Your task to perform on an android device: Is it going to rain today? Image 0: 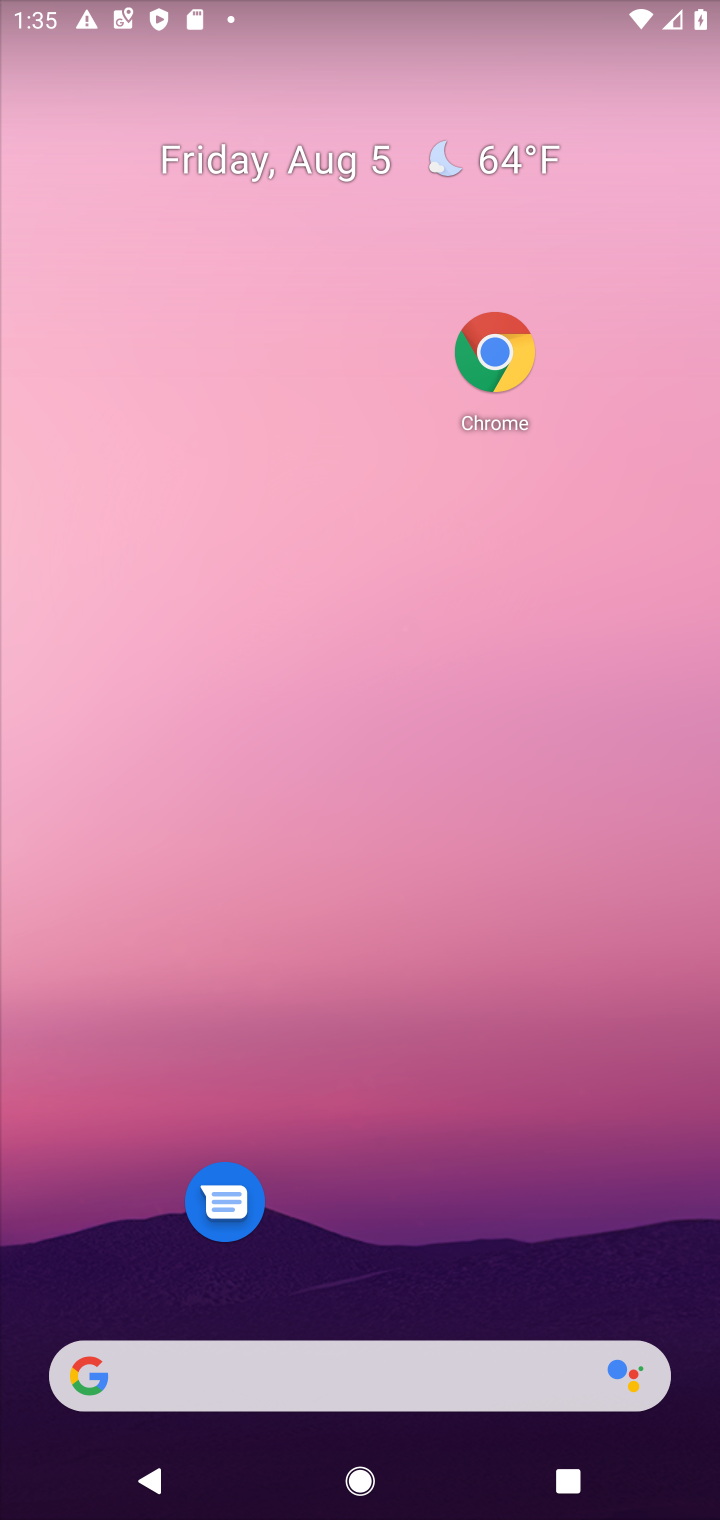
Step 0: click (516, 156)
Your task to perform on an android device: Is it going to rain today? Image 1: 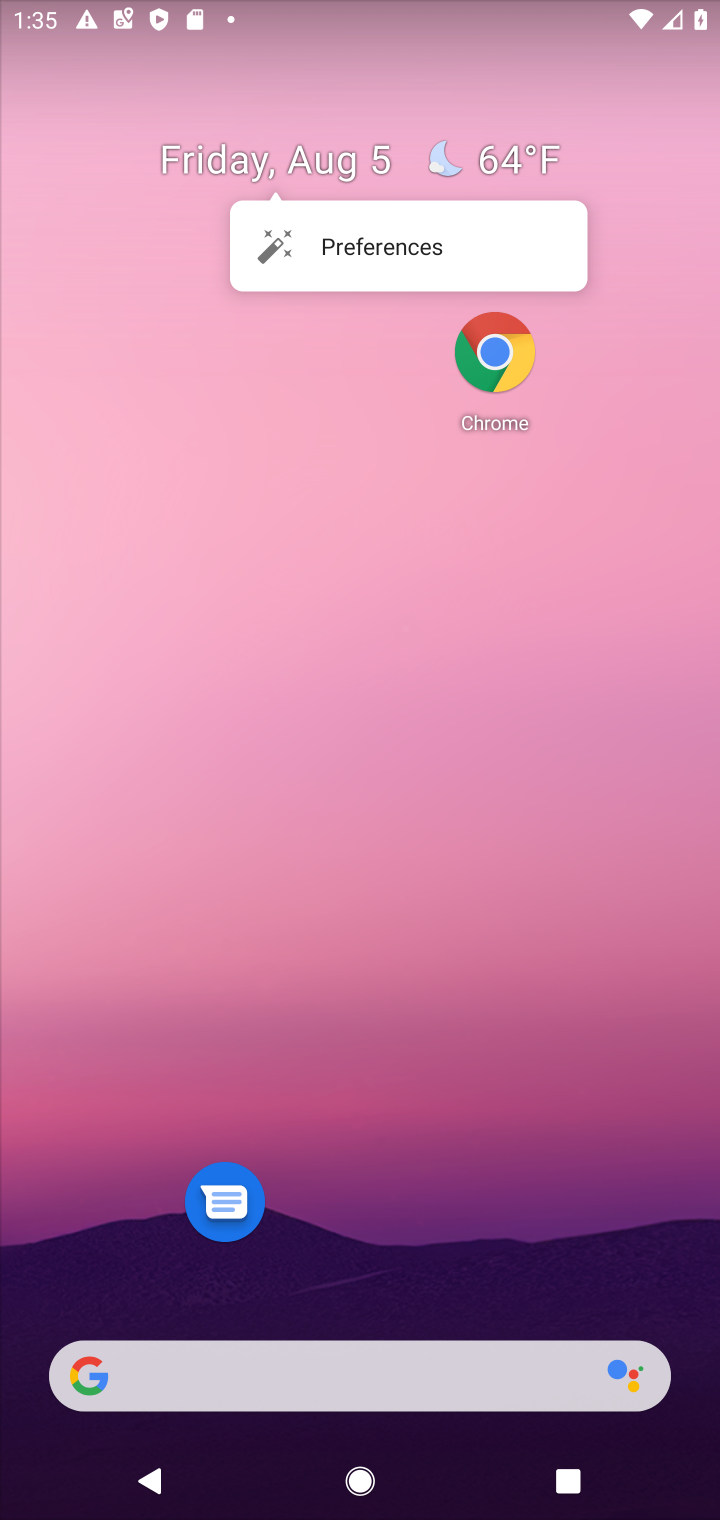
Step 1: click (520, 167)
Your task to perform on an android device: Is it going to rain today? Image 2: 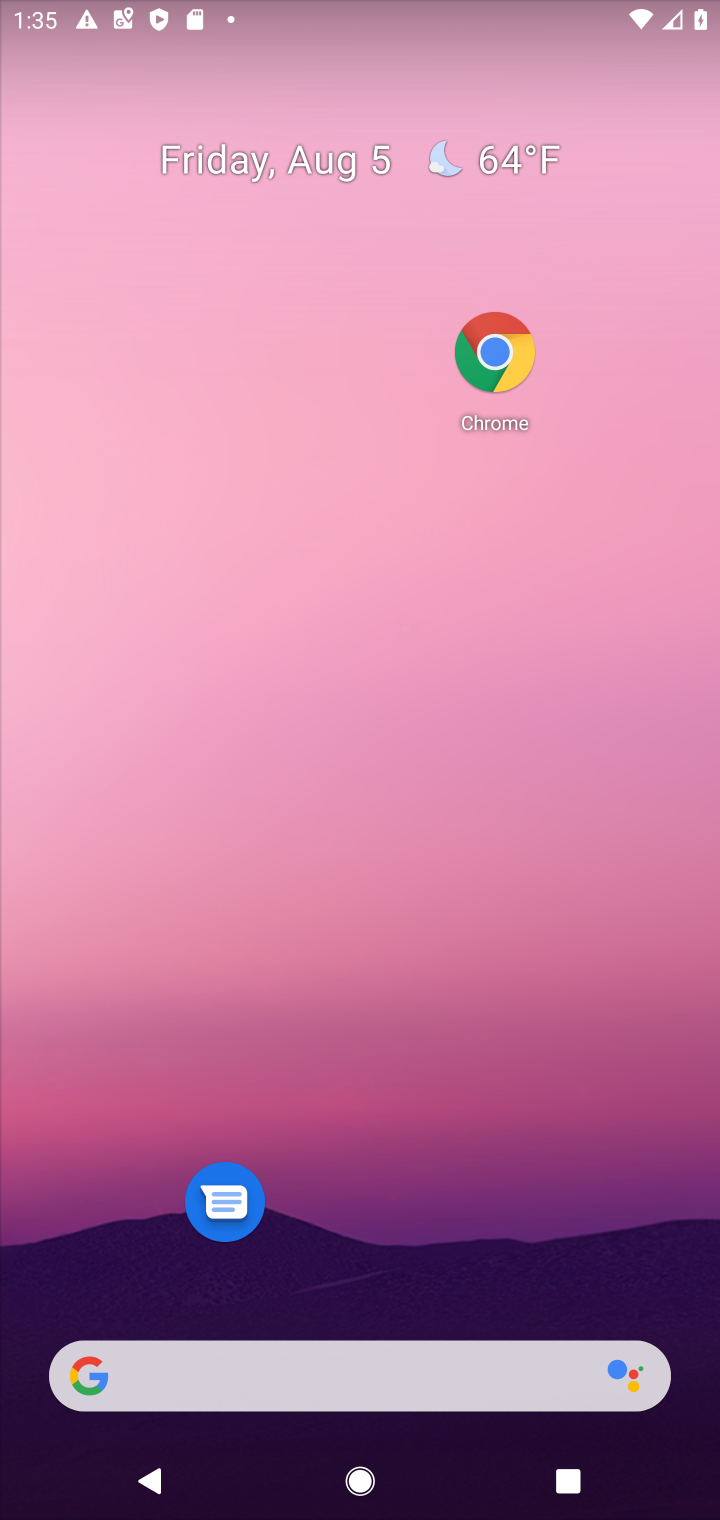
Step 2: click (521, 158)
Your task to perform on an android device: Is it going to rain today? Image 3: 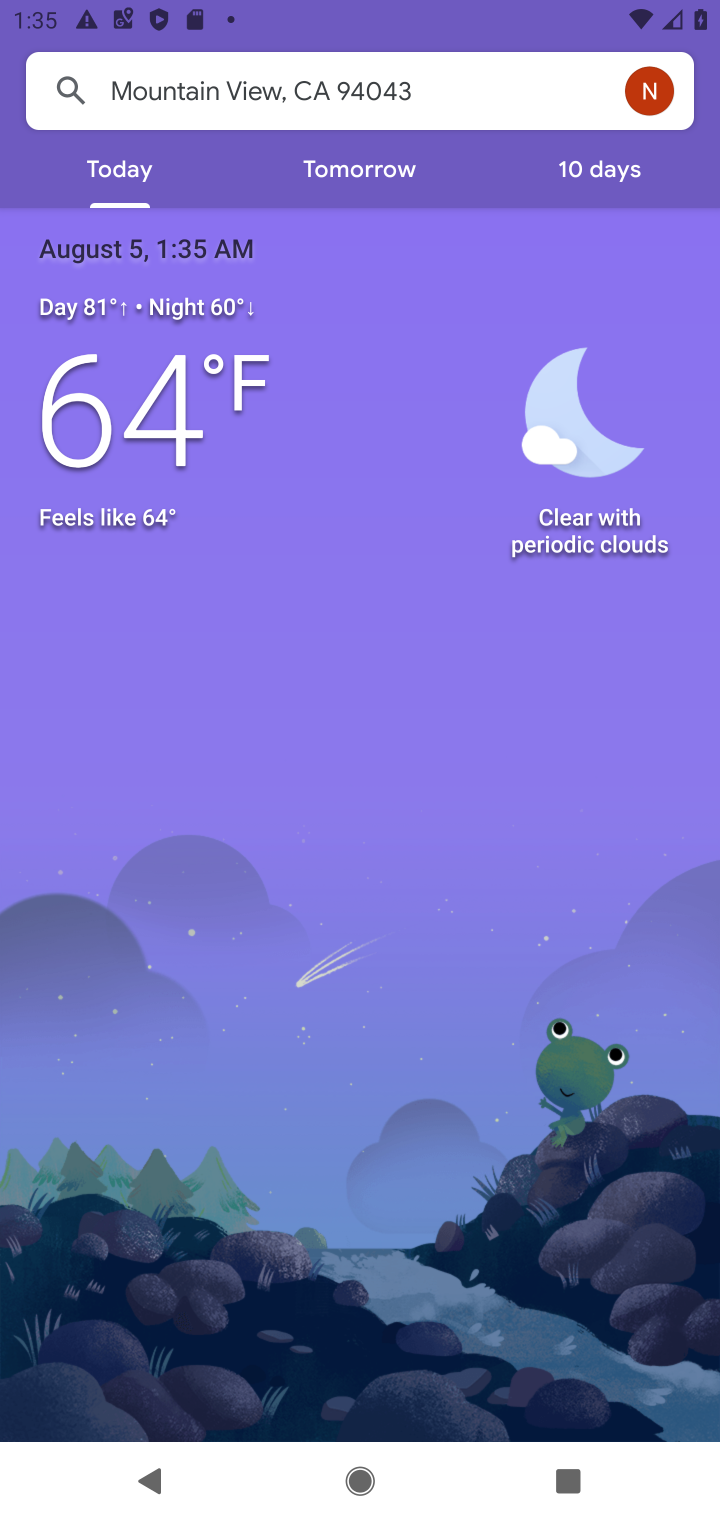
Step 3: task complete